Your task to perform on an android device: Open Wikipedia Image 0: 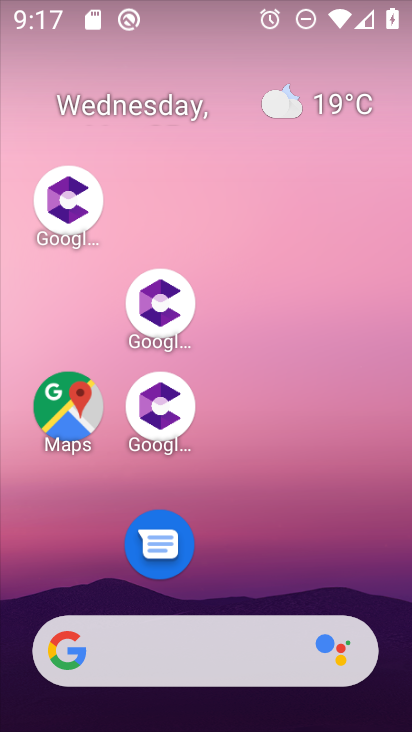
Step 0: drag from (249, 542) to (237, 91)
Your task to perform on an android device: Open Wikipedia Image 1: 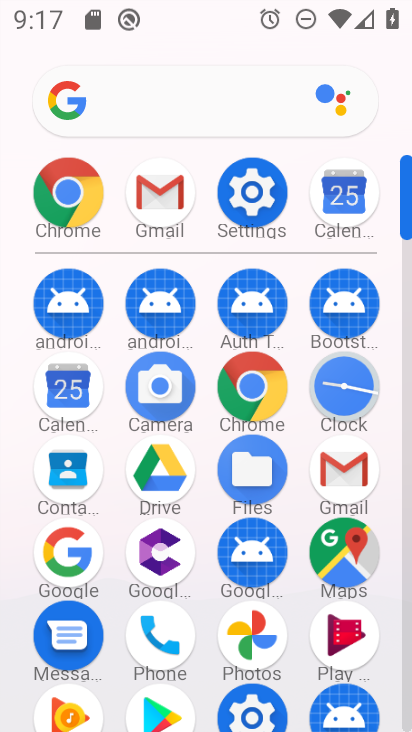
Step 1: click (253, 386)
Your task to perform on an android device: Open Wikipedia Image 2: 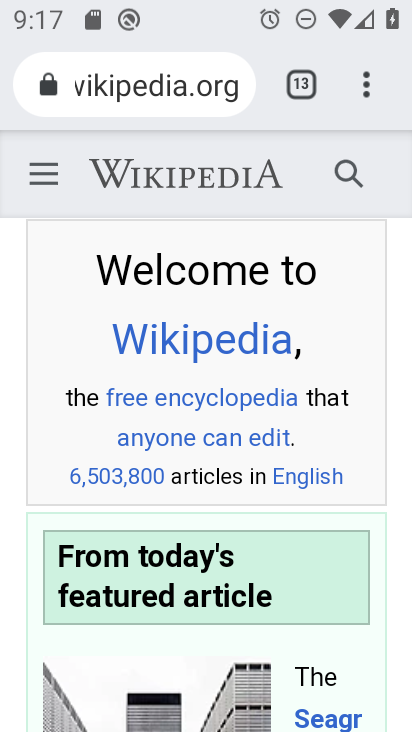
Step 2: task complete